Your task to perform on an android device: turn on the 12-hour format for clock Image 0: 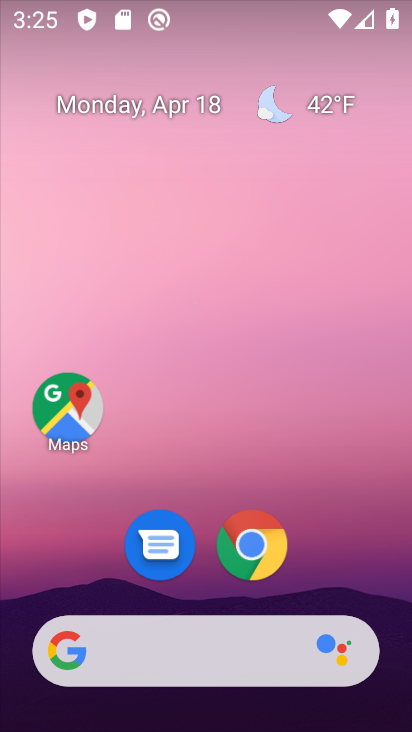
Step 0: drag from (211, 585) to (198, 133)
Your task to perform on an android device: turn on the 12-hour format for clock Image 1: 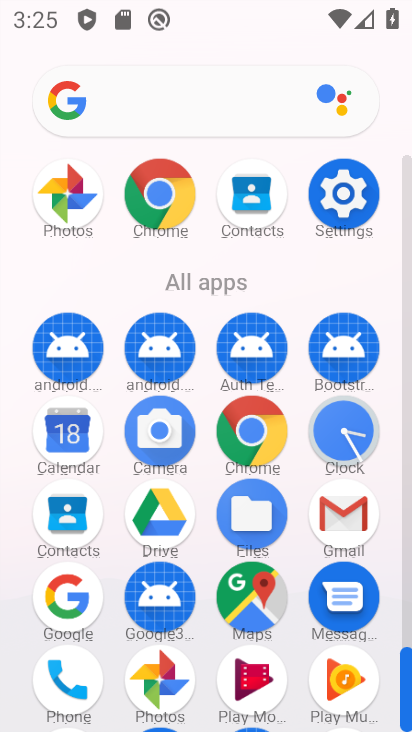
Step 1: click (353, 446)
Your task to perform on an android device: turn on the 12-hour format for clock Image 2: 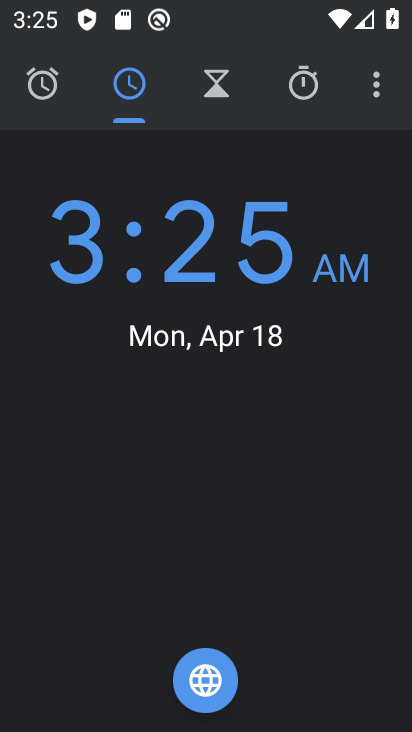
Step 2: click (378, 85)
Your task to perform on an android device: turn on the 12-hour format for clock Image 3: 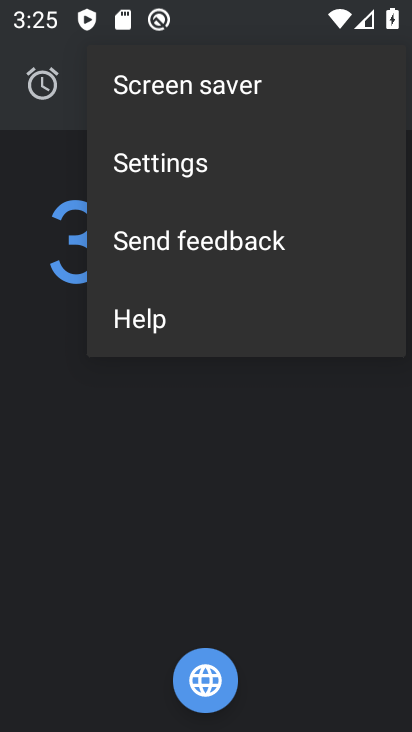
Step 3: click (192, 167)
Your task to perform on an android device: turn on the 12-hour format for clock Image 4: 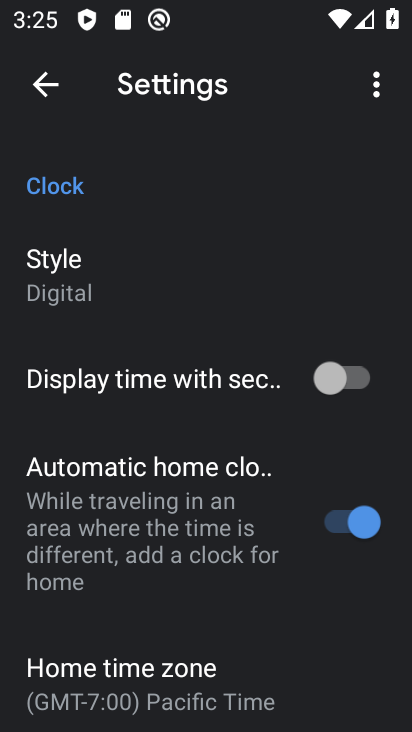
Step 4: drag from (301, 616) to (294, 352)
Your task to perform on an android device: turn on the 12-hour format for clock Image 5: 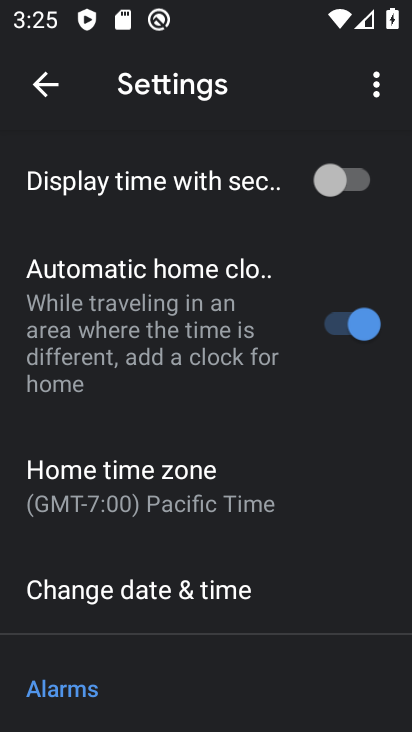
Step 5: drag from (304, 630) to (294, 399)
Your task to perform on an android device: turn on the 12-hour format for clock Image 6: 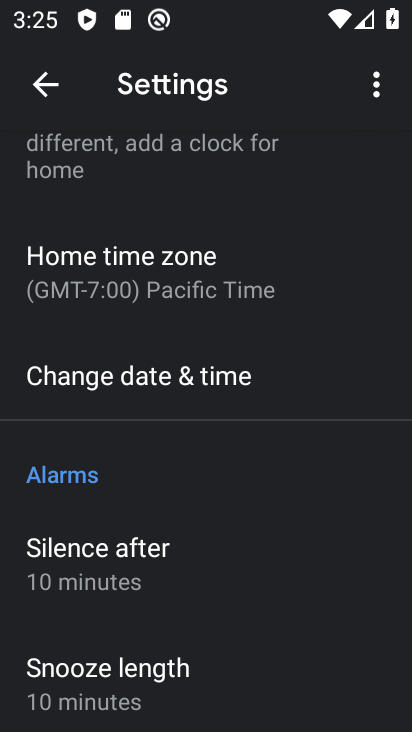
Step 6: drag from (295, 588) to (312, 349)
Your task to perform on an android device: turn on the 12-hour format for clock Image 7: 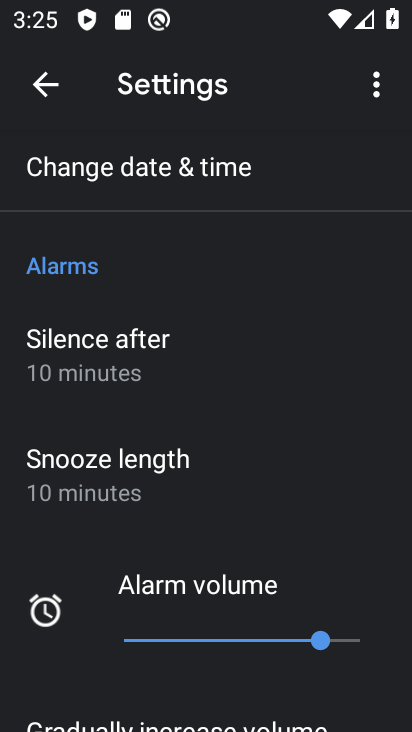
Step 7: drag from (360, 660) to (354, 327)
Your task to perform on an android device: turn on the 12-hour format for clock Image 8: 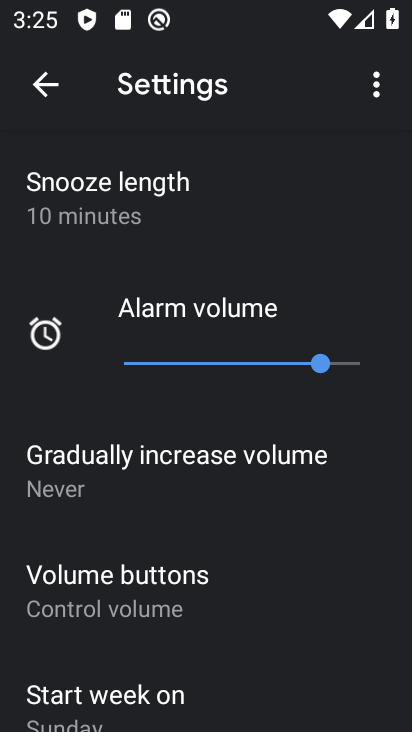
Step 8: drag from (328, 599) to (354, 188)
Your task to perform on an android device: turn on the 12-hour format for clock Image 9: 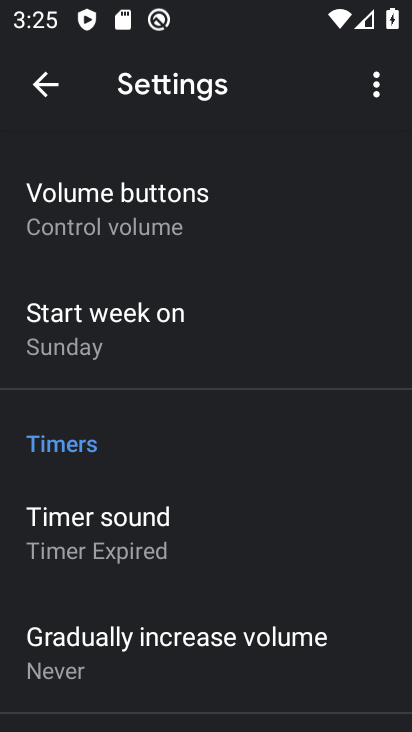
Step 9: drag from (376, 228) to (353, 501)
Your task to perform on an android device: turn on the 12-hour format for clock Image 10: 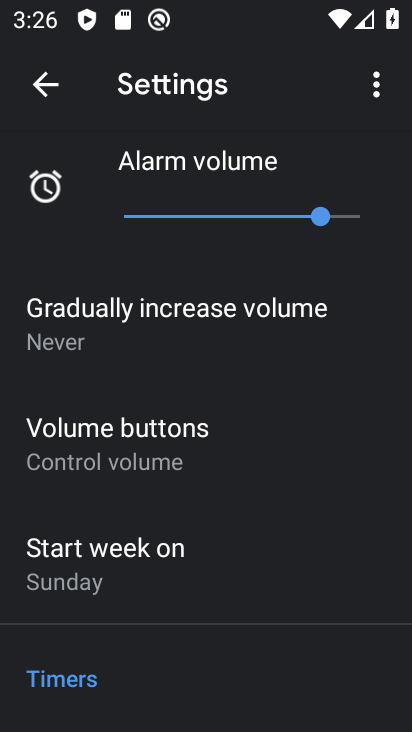
Step 10: drag from (378, 202) to (357, 474)
Your task to perform on an android device: turn on the 12-hour format for clock Image 11: 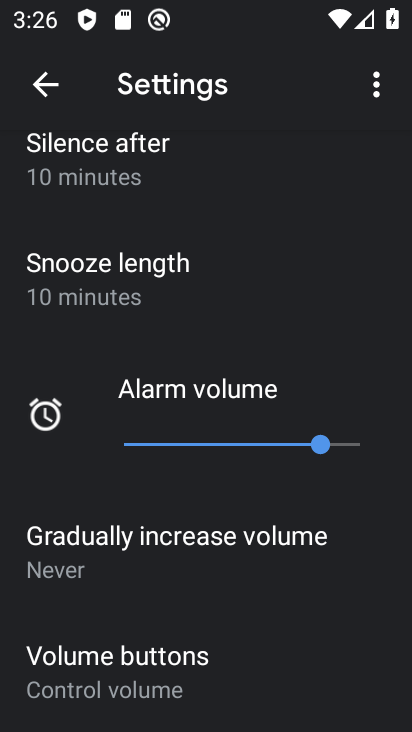
Step 11: drag from (359, 255) to (358, 511)
Your task to perform on an android device: turn on the 12-hour format for clock Image 12: 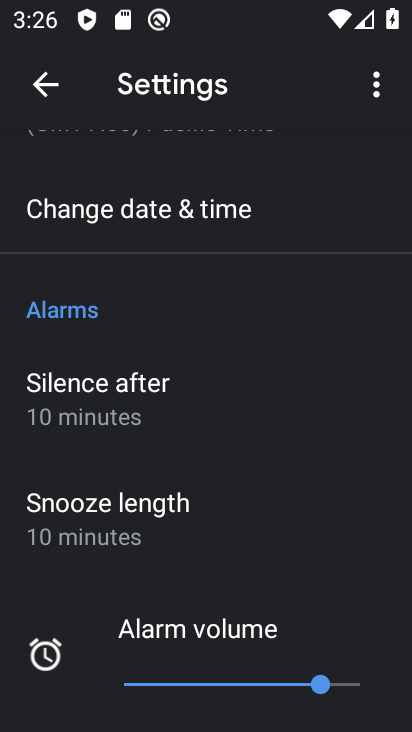
Step 12: drag from (344, 215) to (335, 406)
Your task to perform on an android device: turn on the 12-hour format for clock Image 13: 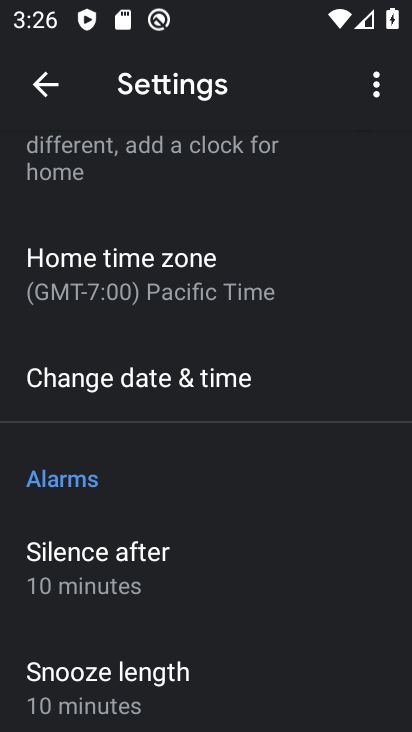
Step 13: click (224, 387)
Your task to perform on an android device: turn on the 12-hour format for clock Image 14: 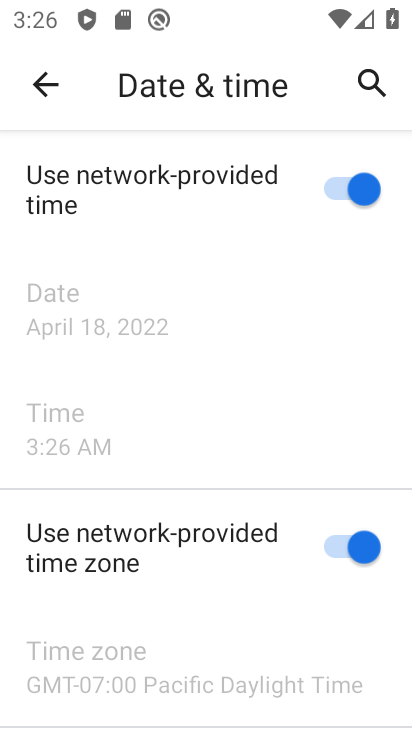
Step 14: drag from (247, 596) to (270, 247)
Your task to perform on an android device: turn on the 12-hour format for clock Image 15: 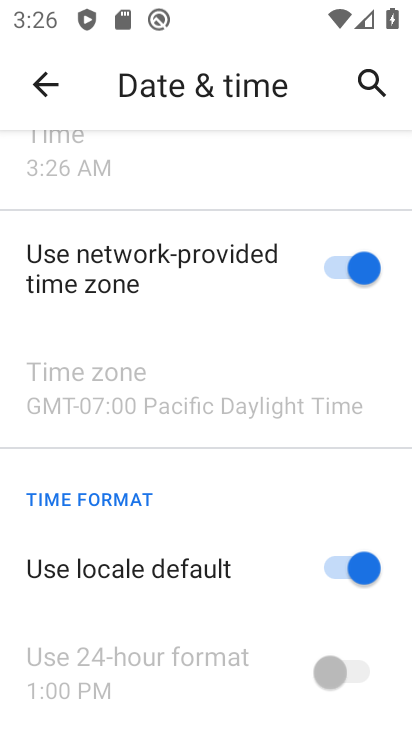
Step 15: drag from (253, 590) to (264, 368)
Your task to perform on an android device: turn on the 12-hour format for clock Image 16: 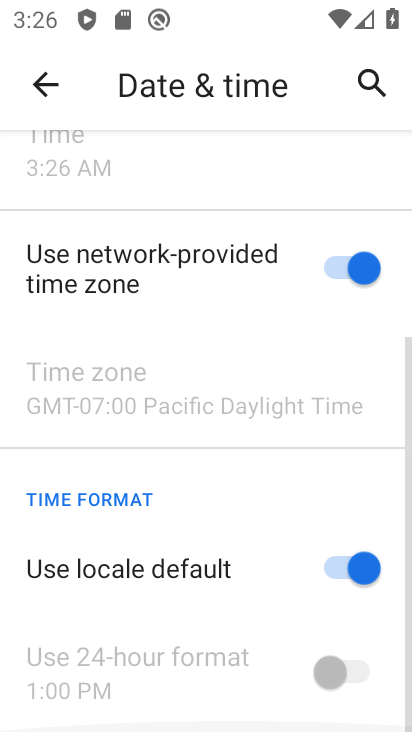
Step 16: click (339, 573)
Your task to perform on an android device: turn on the 12-hour format for clock Image 17: 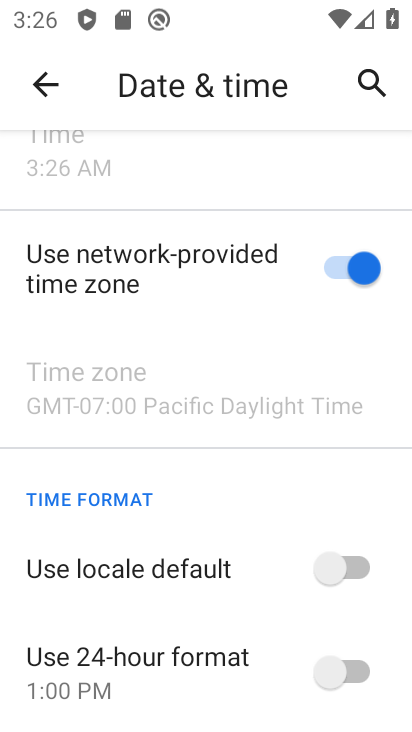
Step 17: task complete